Your task to perform on an android device: Search for seafood restaurants on Google Maps Image 0: 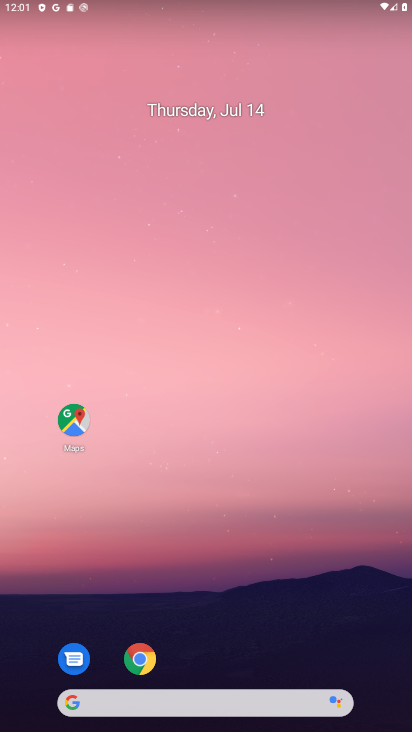
Step 0: click (76, 414)
Your task to perform on an android device: Search for seafood restaurants on Google Maps Image 1: 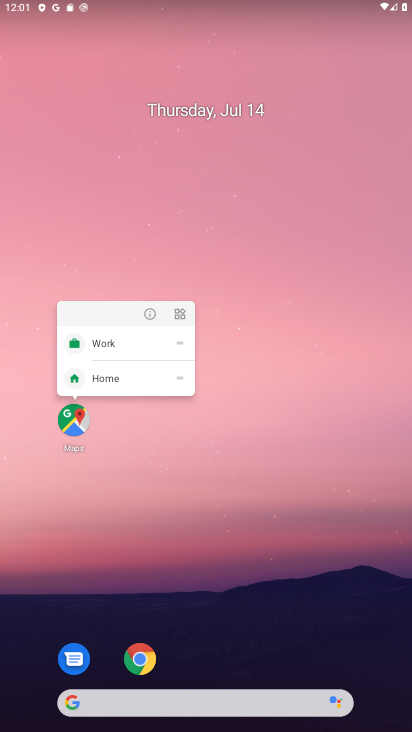
Step 1: click (79, 421)
Your task to perform on an android device: Search for seafood restaurants on Google Maps Image 2: 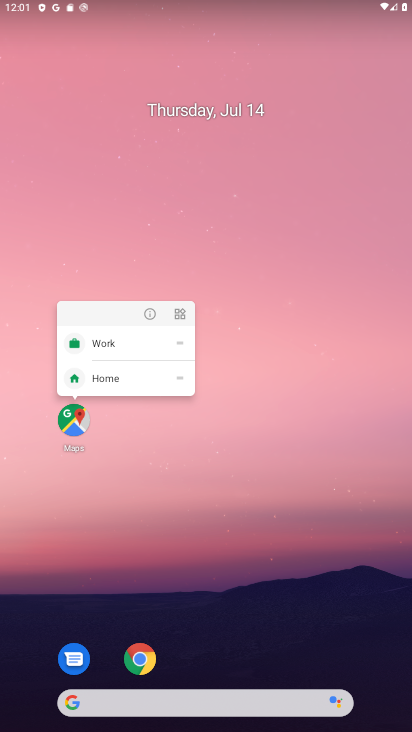
Step 2: click (76, 437)
Your task to perform on an android device: Search for seafood restaurants on Google Maps Image 3: 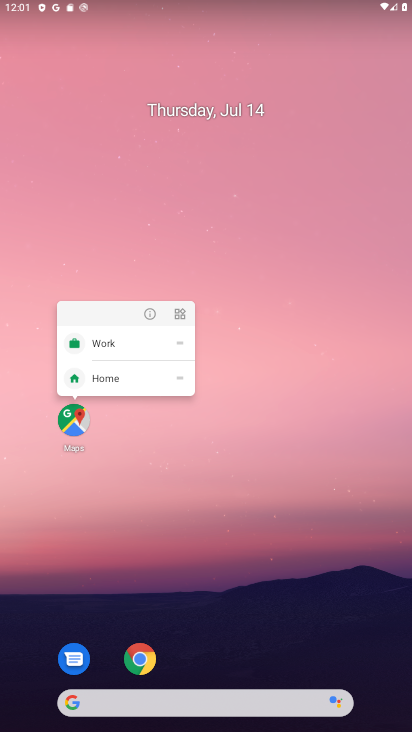
Step 3: click (77, 418)
Your task to perform on an android device: Search for seafood restaurants on Google Maps Image 4: 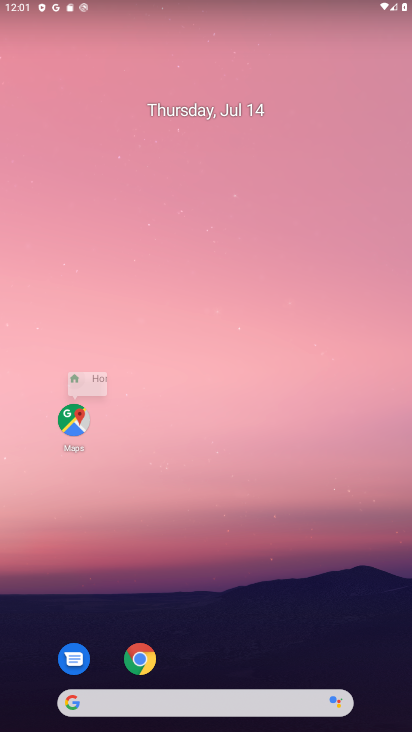
Step 4: click (77, 418)
Your task to perform on an android device: Search for seafood restaurants on Google Maps Image 5: 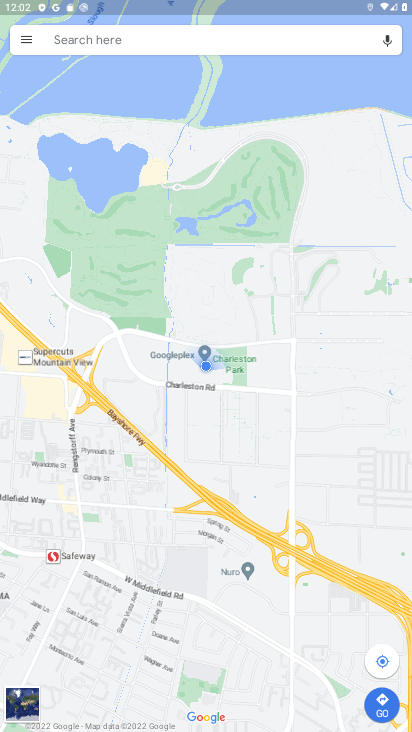
Step 5: click (107, 35)
Your task to perform on an android device: Search for seafood restaurants on Google Maps Image 6: 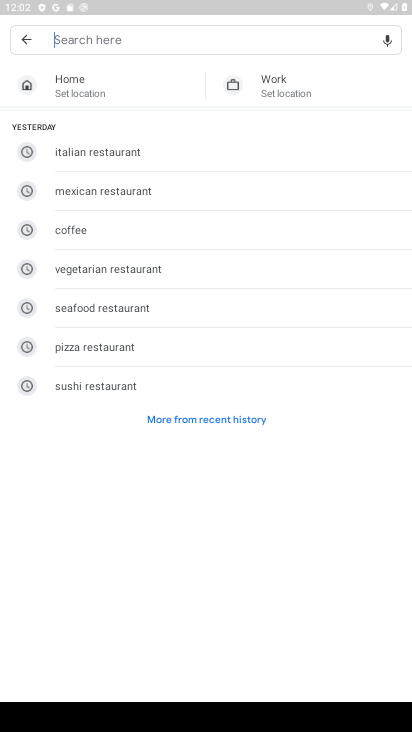
Step 6: type "seafood restaurants"
Your task to perform on an android device: Search for seafood restaurants on Google Maps Image 7: 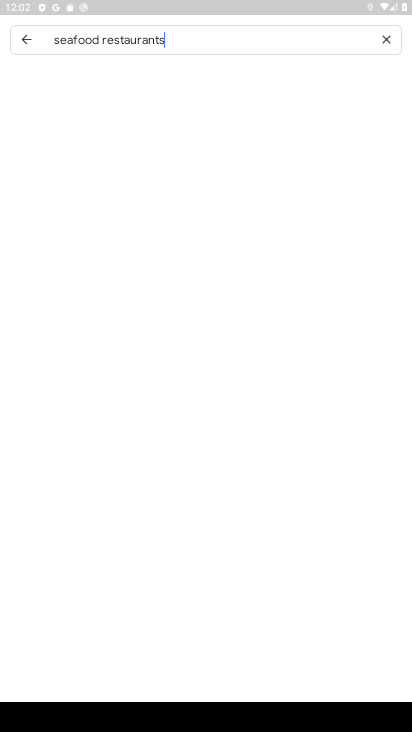
Step 7: type ""
Your task to perform on an android device: Search for seafood restaurants on Google Maps Image 8: 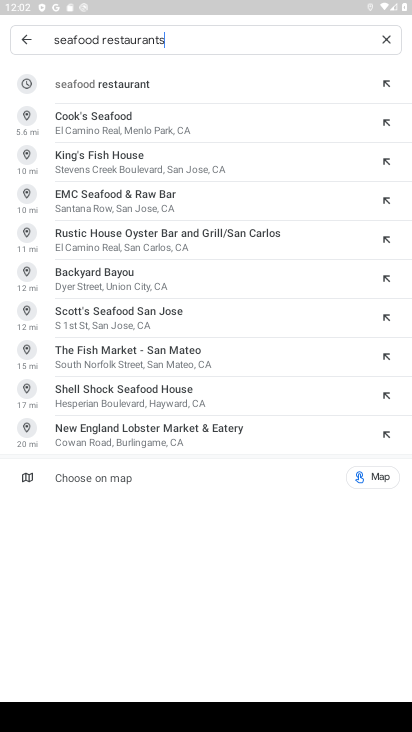
Step 8: task complete